Your task to perform on an android device: toggle notification dots Image 0: 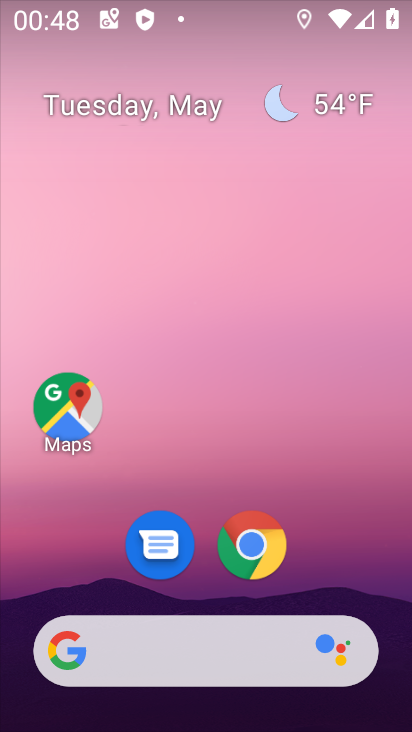
Step 0: drag from (320, 549) to (326, 72)
Your task to perform on an android device: toggle notification dots Image 1: 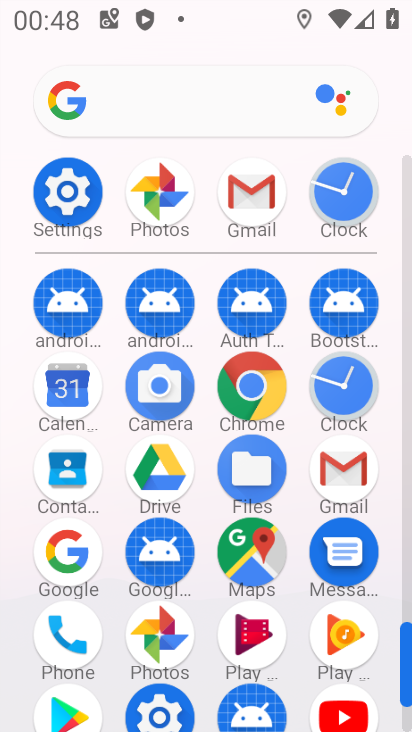
Step 1: click (57, 188)
Your task to perform on an android device: toggle notification dots Image 2: 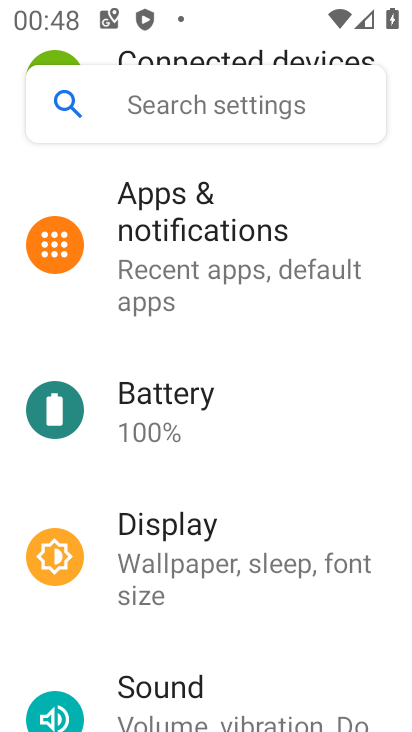
Step 2: click (208, 263)
Your task to perform on an android device: toggle notification dots Image 3: 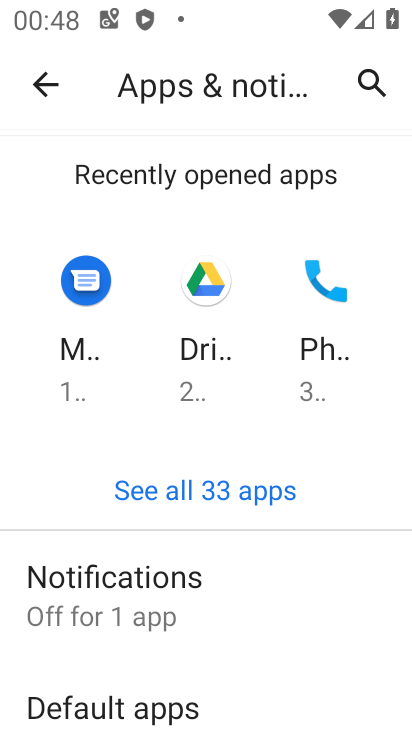
Step 3: click (195, 588)
Your task to perform on an android device: toggle notification dots Image 4: 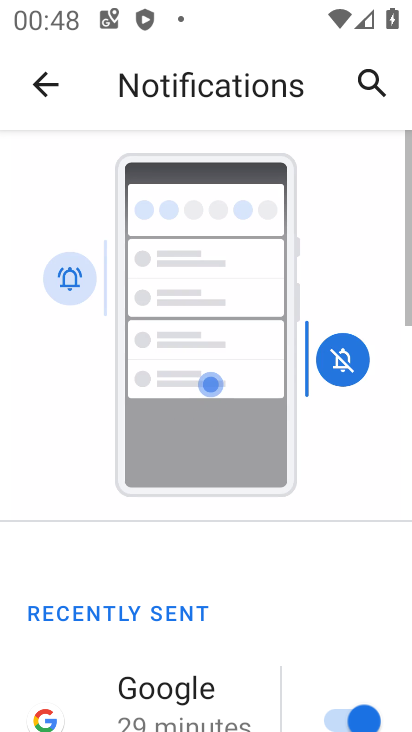
Step 4: drag from (192, 577) to (220, 168)
Your task to perform on an android device: toggle notification dots Image 5: 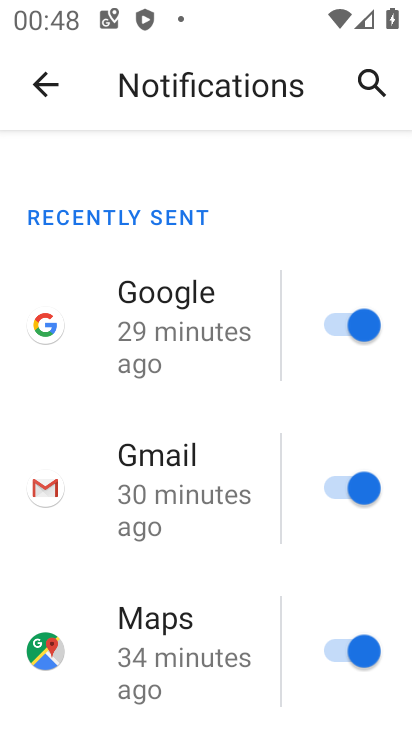
Step 5: drag from (252, 614) to (238, 199)
Your task to perform on an android device: toggle notification dots Image 6: 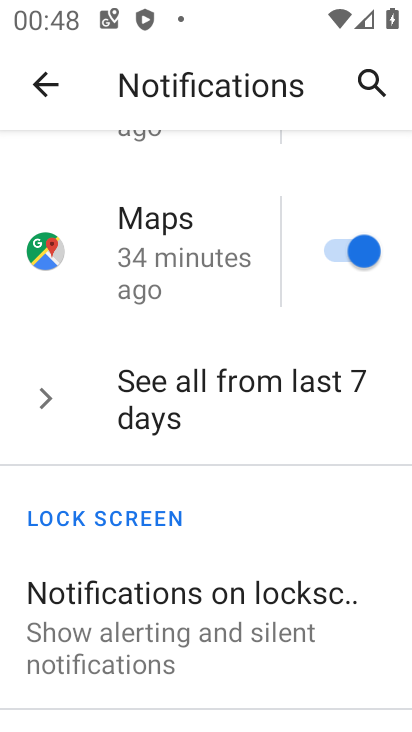
Step 6: drag from (175, 587) to (175, 350)
Your task to perform on an android device: toggle notification dots Image 7: 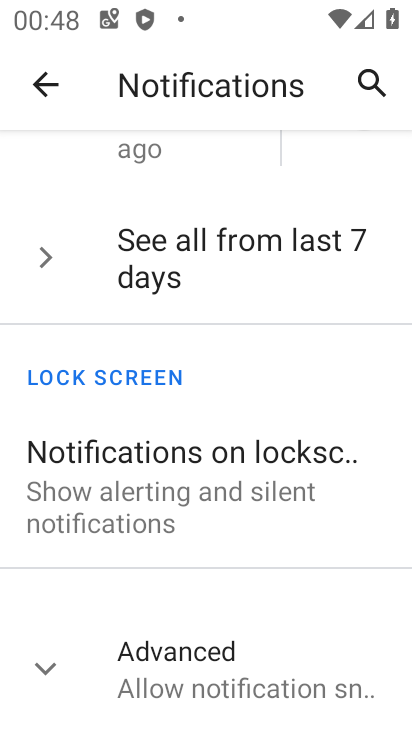
Step 7: click (183, 668)
Your task to perform on an android device: toggle notification dots Image 8: 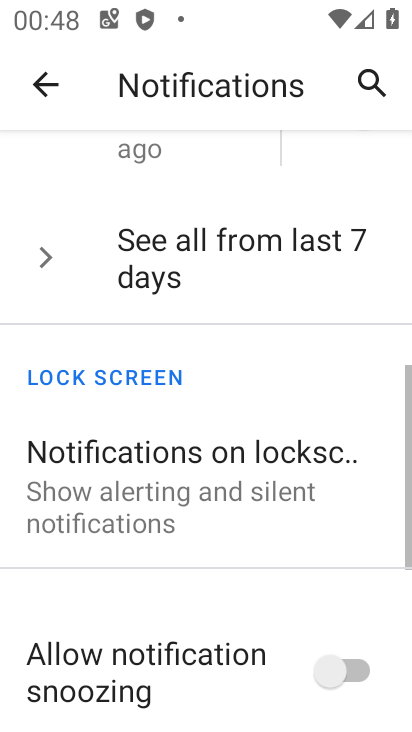
Step 8: drag from (192, 616) to (221, 322)
Your task to perform on an android device: toggle notification dots Image 9: 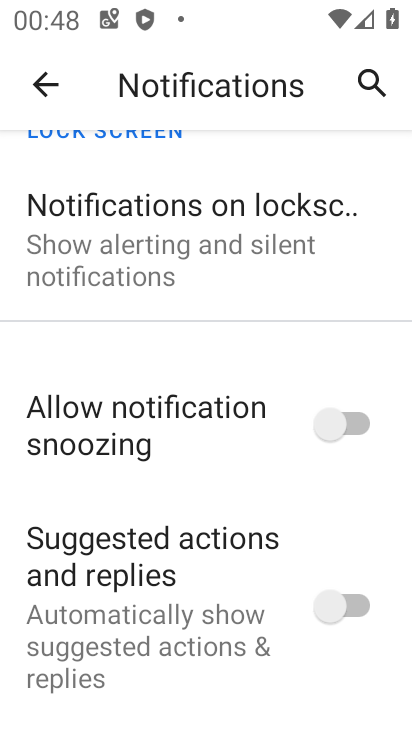
Step 9: drag from (236, 635) to (220, 451)
Your task to perform on an android device: toggle notification dots Image 10: 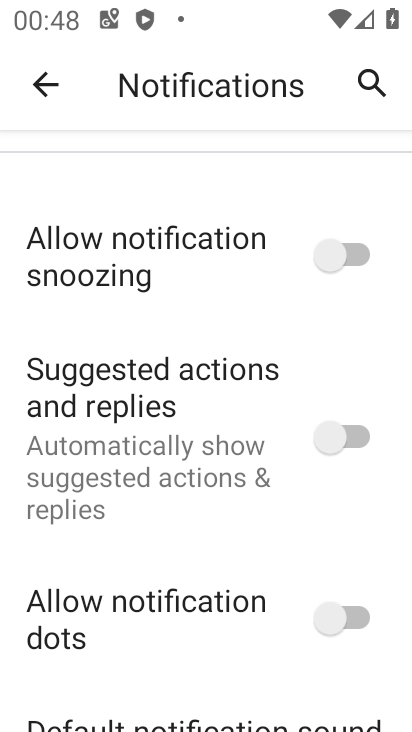
Step 10: click (335, 610)
Your task to perform on an android device: toggle notification dots Image 11: 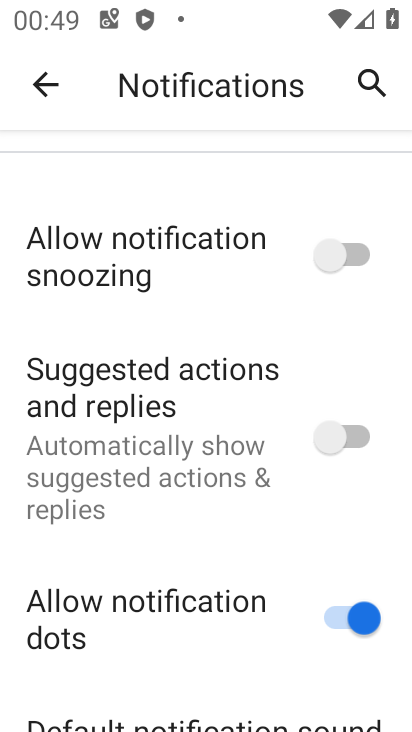
Step 11: task complete